Your task to perform on an android device: open app "Expedia: Hotels, Flights & Car" Image 0: 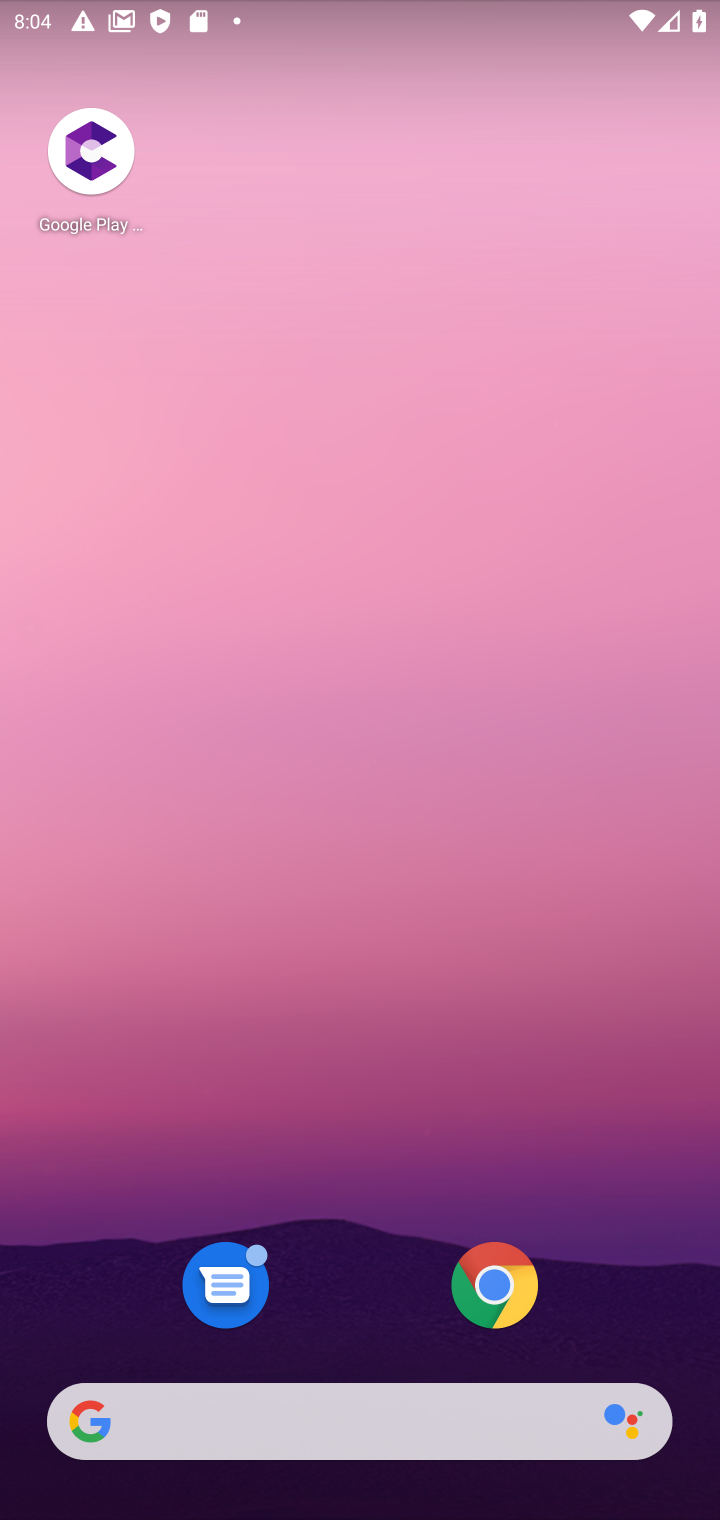
Step 0: drag from (357, 1417) to (329, 458)
Your task to perform on an android device: open app "Expedia: Hotels, Flights & Car" Image 1: 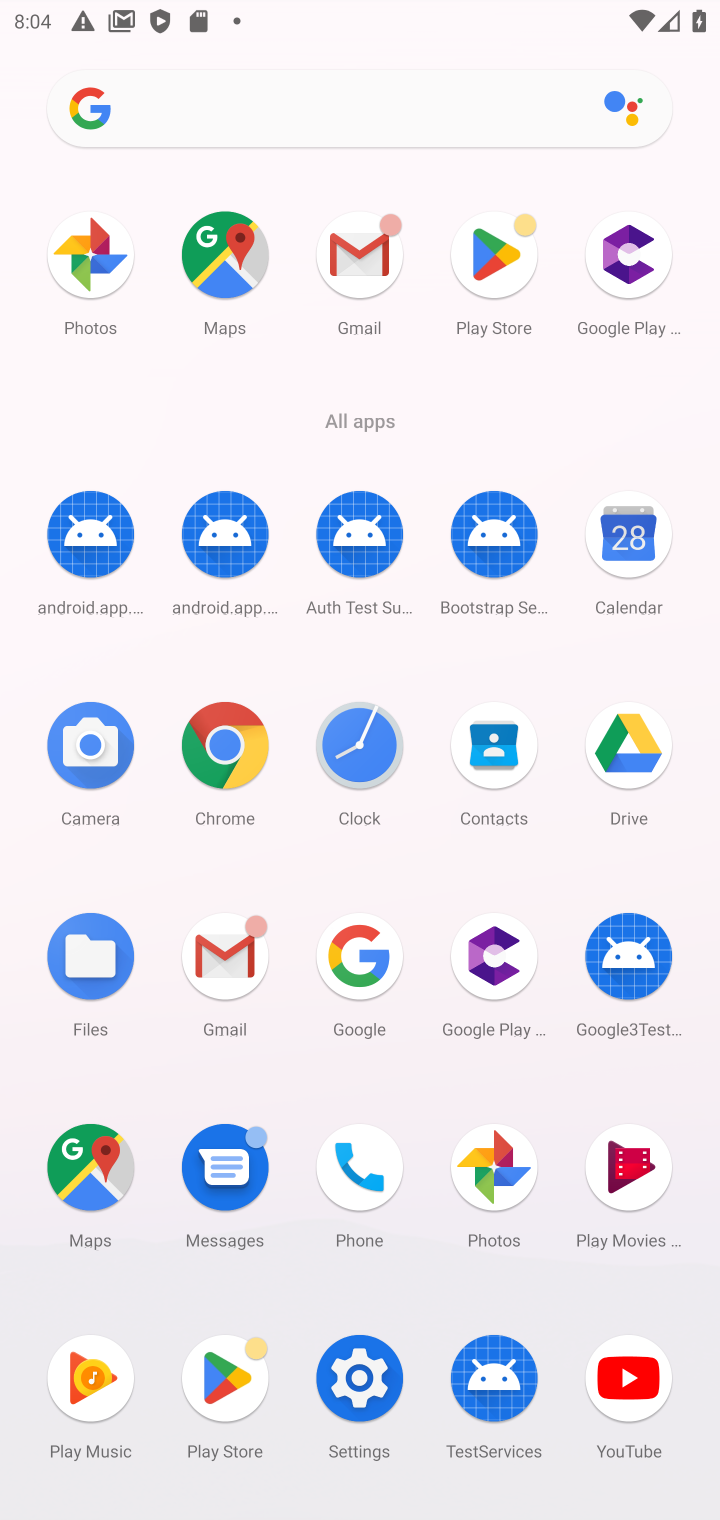
Step 1: click (492, 266)
Your task to perform on an android device: open app "Expedia: Hotels, Flights & Car" Image 2: 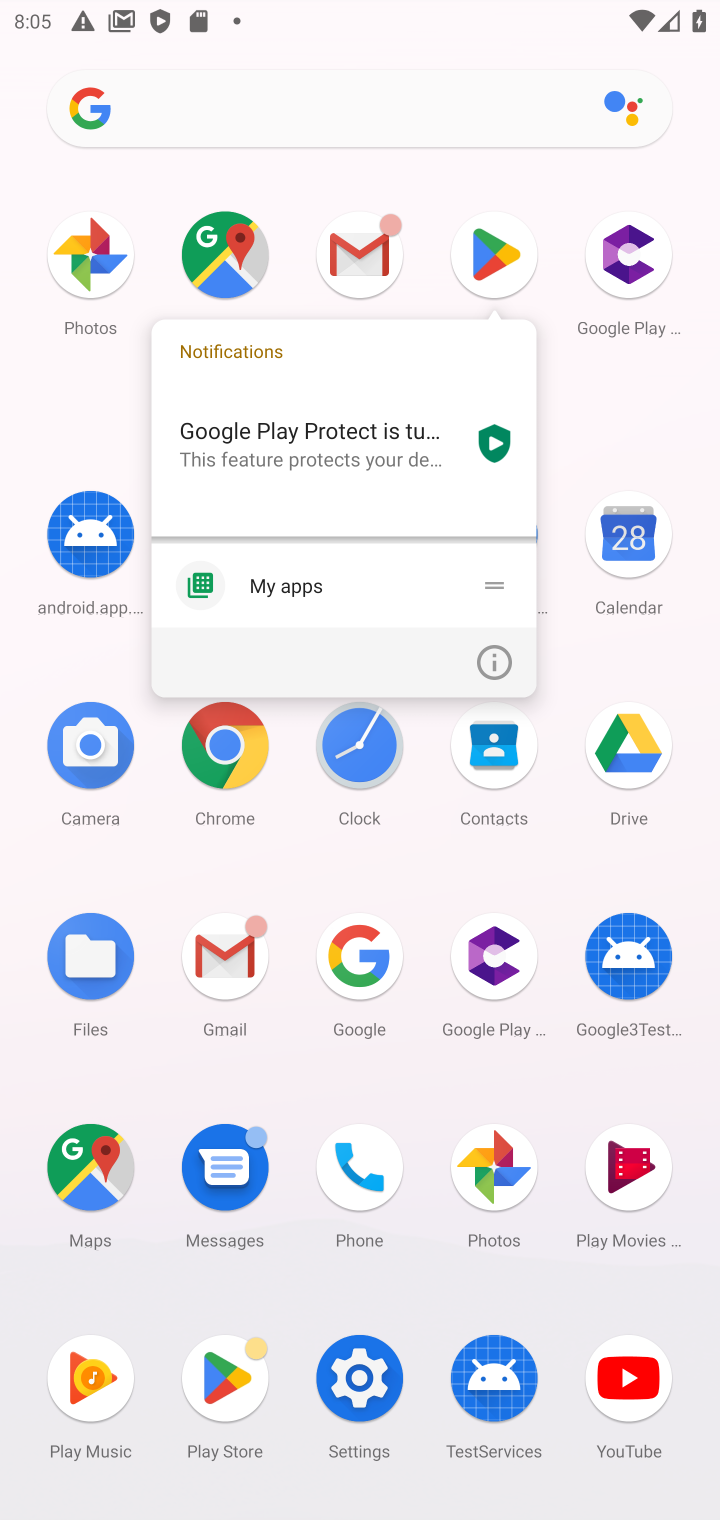
Step 2: click (479, 251)
Your task to perform on an android device: open app "Expedia: Hotels, Flights & Car" Image 3: 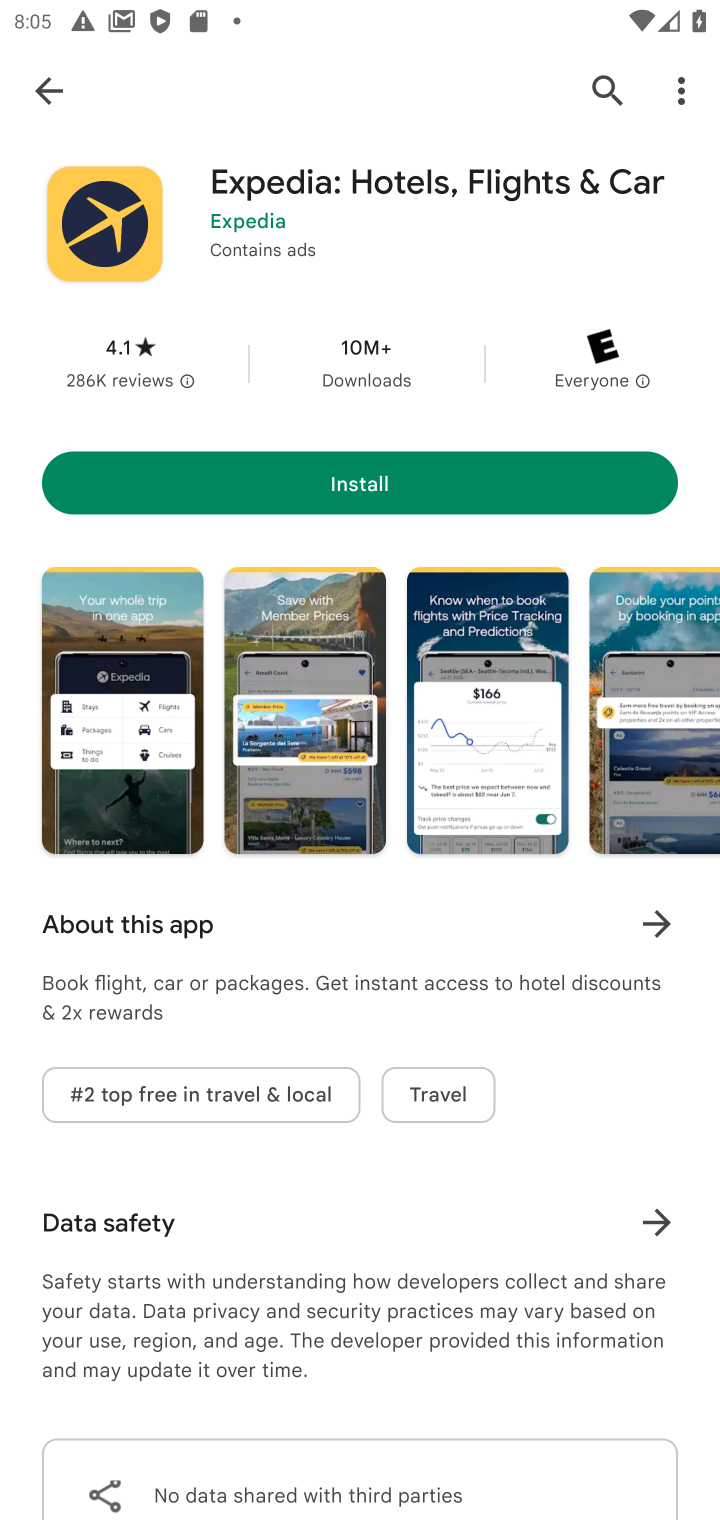
Step 3: task complete